Your task to perform on an android device: Go to Maps Image 0: 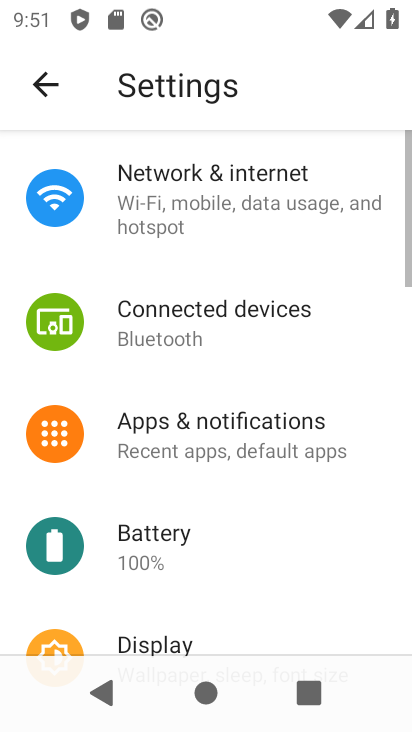
Step 0: press home button
Your task to perform on an android device: Go to Maps Image 1: 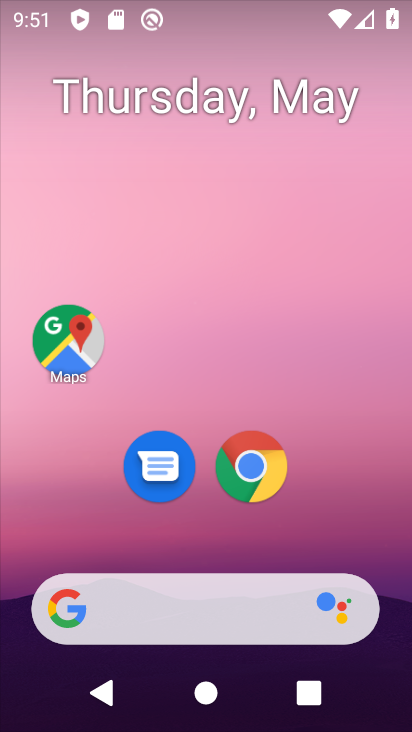
Step 1: click (76, 343)
Your task to perform on an android device: Go to Maps Image 2: 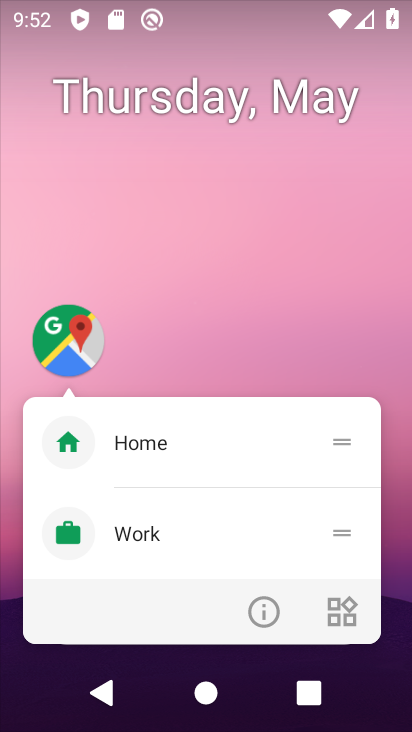
Step 2: click (174, 263)
Your task to perform on an android device: Go to Maps Image 3: 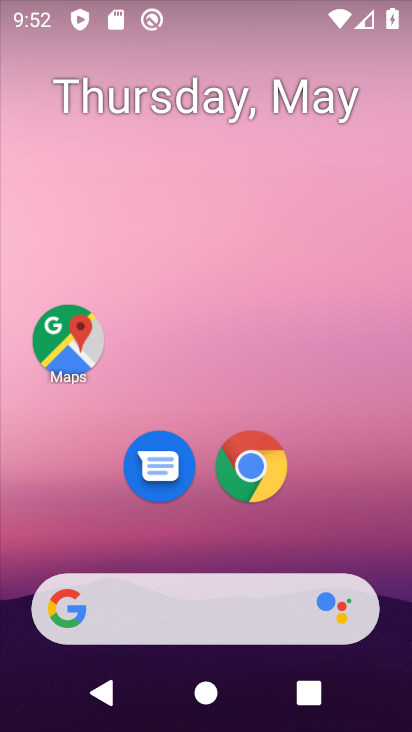
Step 3: click (69, 331)
Your task to perform on an android device: Go to Maps Image 4: 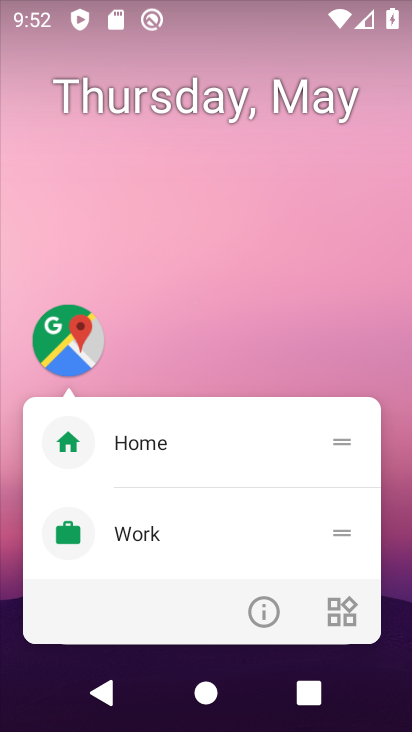
Step 4: click (71, 332)
Your task to perform on an android device: Go to Maps Image 5: 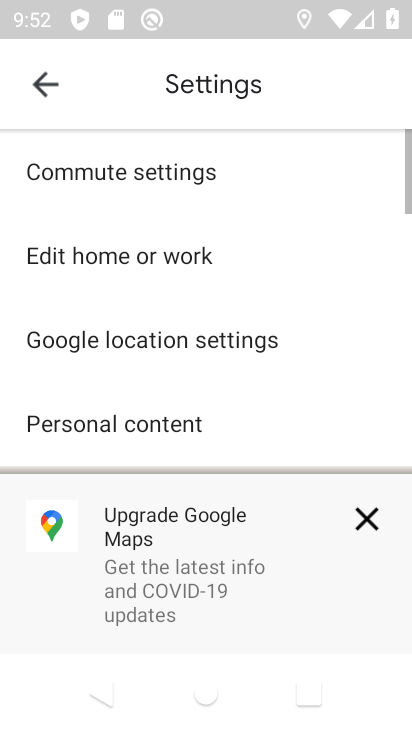
Step 5: click (44, 70)
Your task to perform on an android device: Go to Maps Image 6: 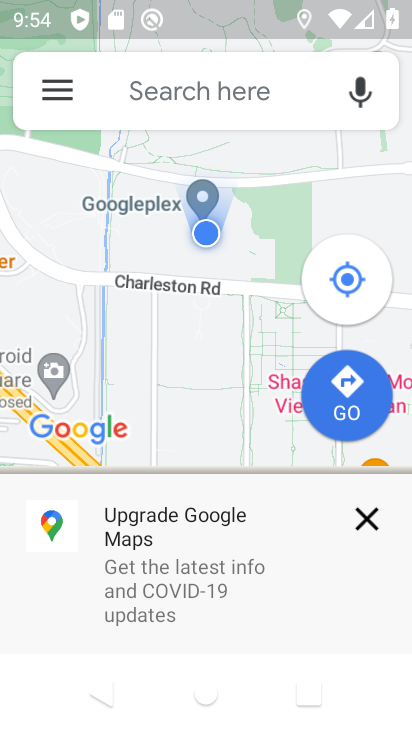
Step 6: task complete